Your task to perform on an android device: Go to battery settings Image 0: 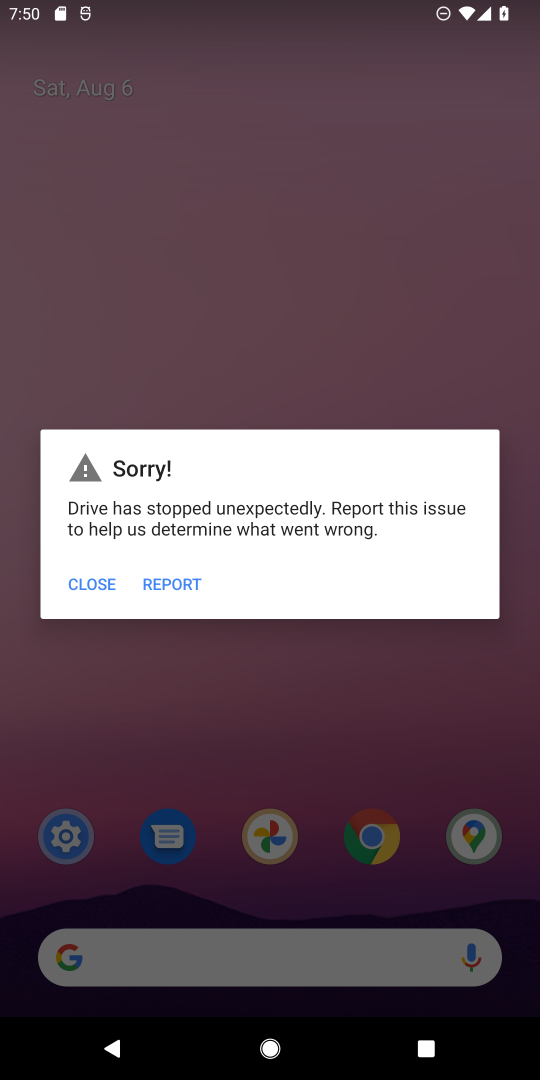
Step 0: press home button
Your task to perform on an android device: Go to battery settings Image 1: 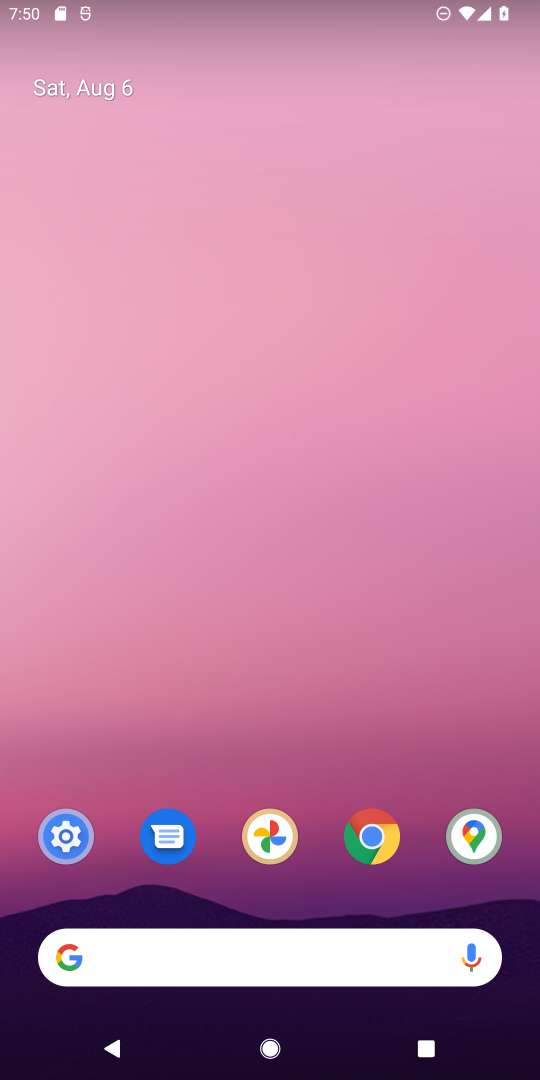
Step 1: drag from (281, 947) to (317, 352)
Your task to perform on an android device: Go to battery settings Image 2: 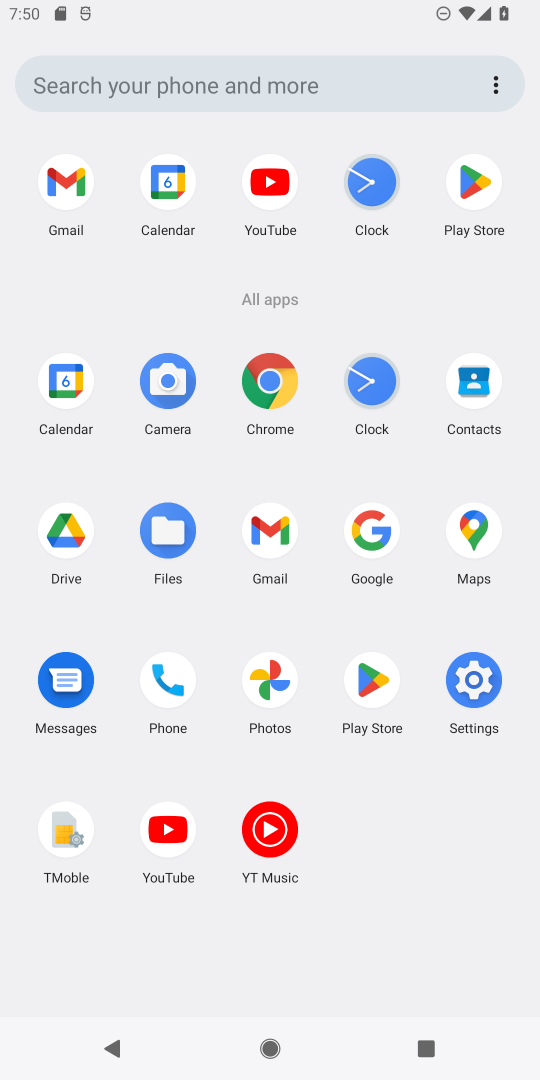
Step 2: click (481, 662)
Your task to perform on an android device: Go to battery settings Image 3: 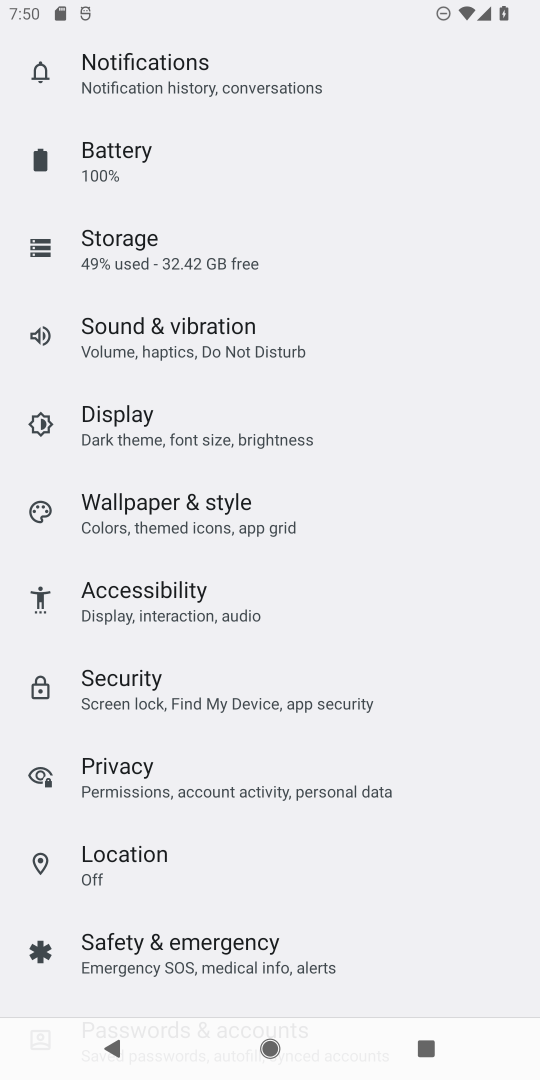
Step 3: click (139, 143)
Your task to perform on an android device: Go to battery settings Image 4: 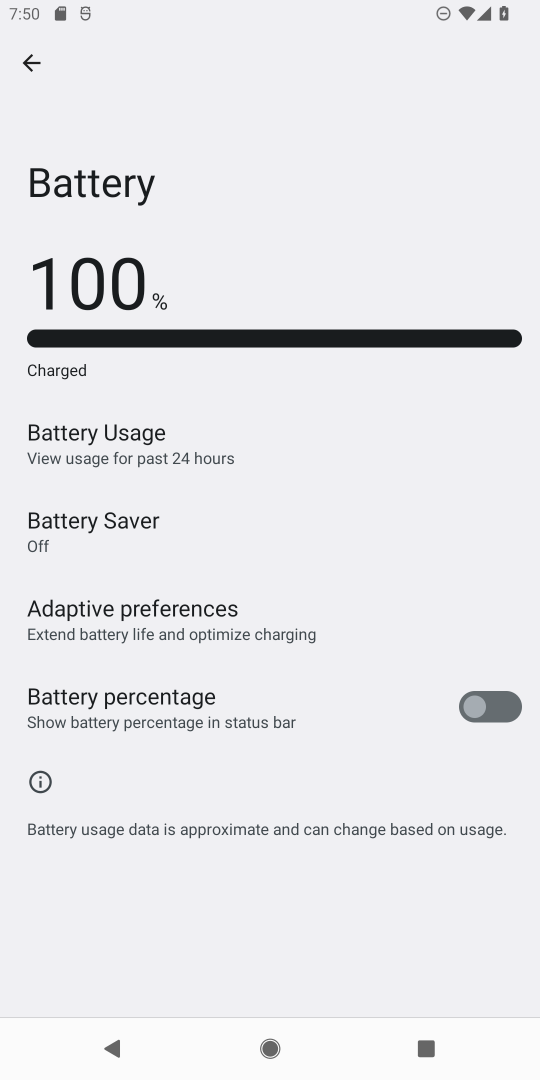
Step 4: task complete